Your task to perform on an android device: Open settings Image 0: 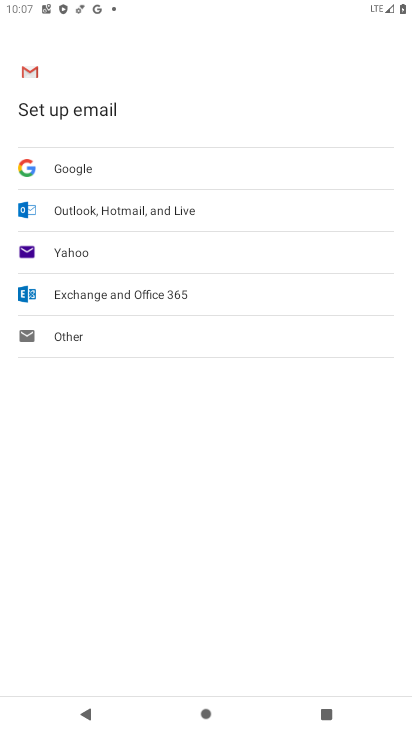
Step 0: press home button
Your task to perform on an android device: Open settings Image 1: 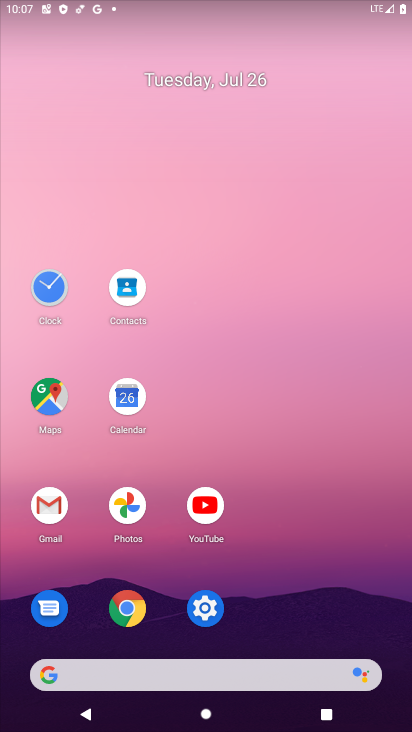
Step 1: click (204, 609)
Your task to perform on an android device: Open settings Image 2: 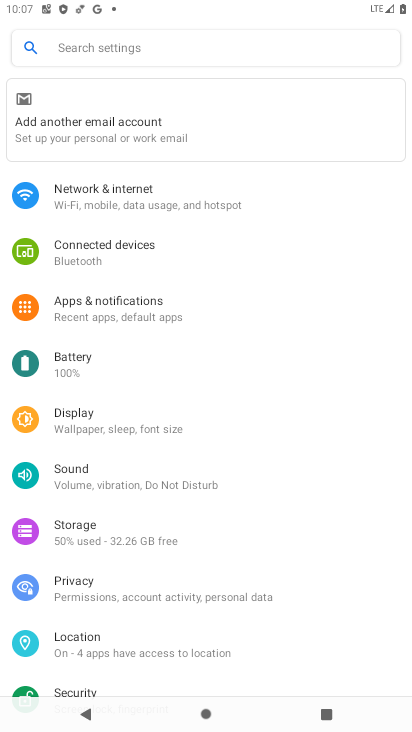
Step 2: task complete